Your task to perform on an android device: open app "LiveIn - Share Your Moment" (install if not already installed) Image 0: 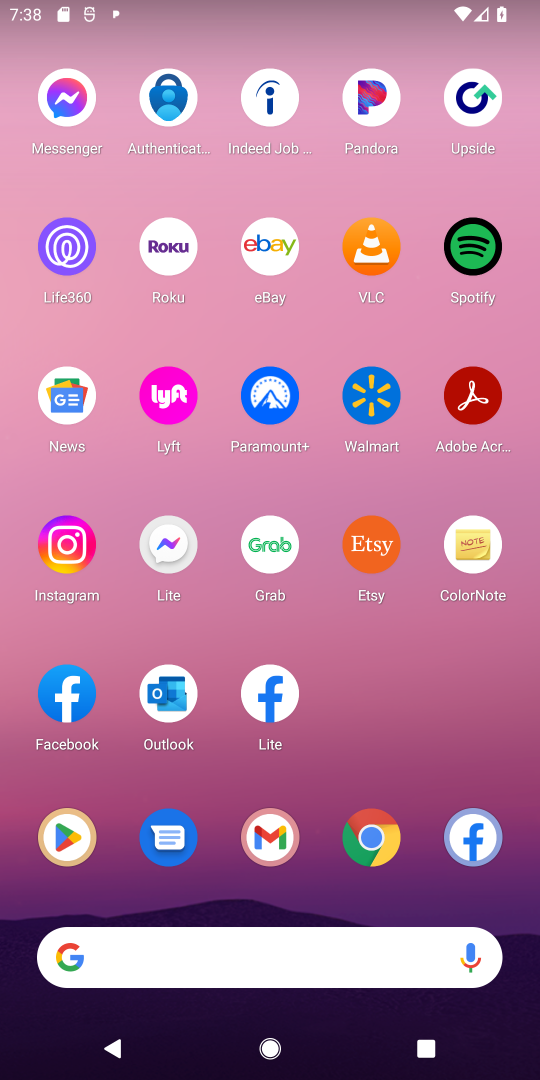
Step 0: click (77, 837)
Your task to perform on an android device: open app "LiveIn - Share Your Moment" (install if not already installed) Image 1: 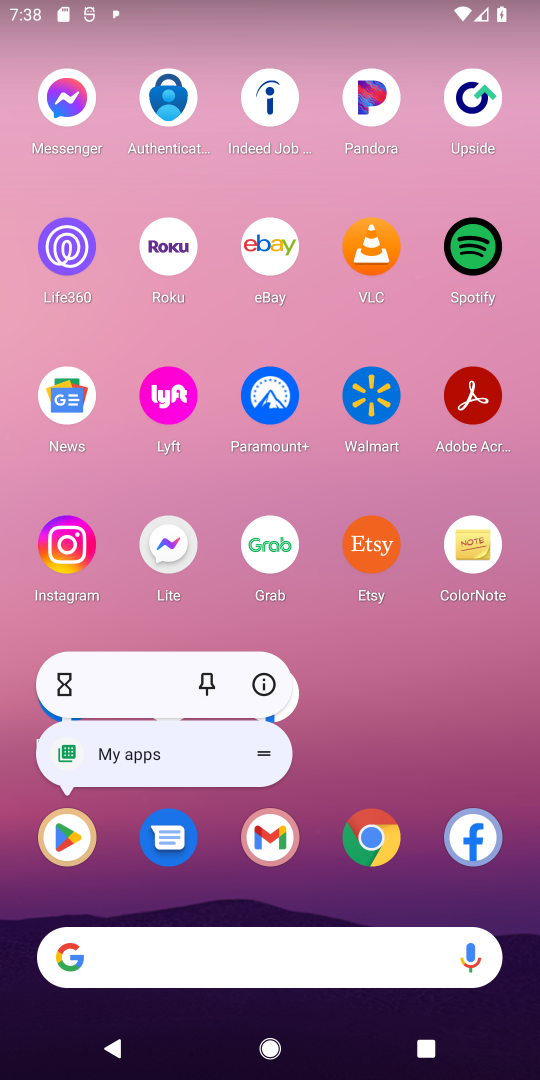
Step 1: click (66, 846)
Your task to perform on an android device: open app "LiveIn - Share Your Moment" (install if not already installed) Image 2: 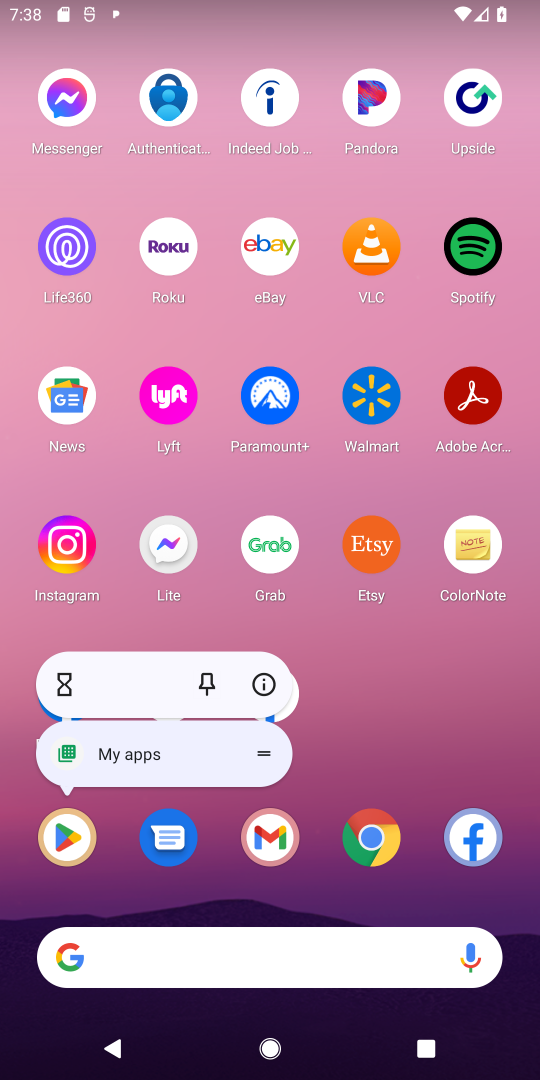
Step 2: click (66, 846)
Your task to perform on an android device: open app "LiveIn - Share Your Moment" (install if not already installed) Image 3: 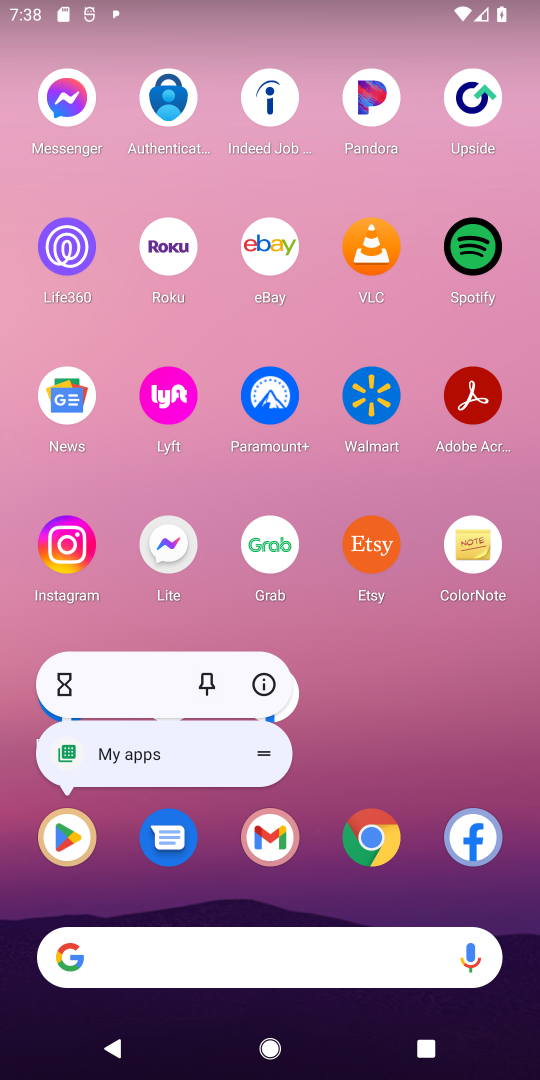
Step 3: click (66, 846)
Your task to perform on an android device: open app "LiveIn - Share Your Moment" (install if not already installed) Image 4: 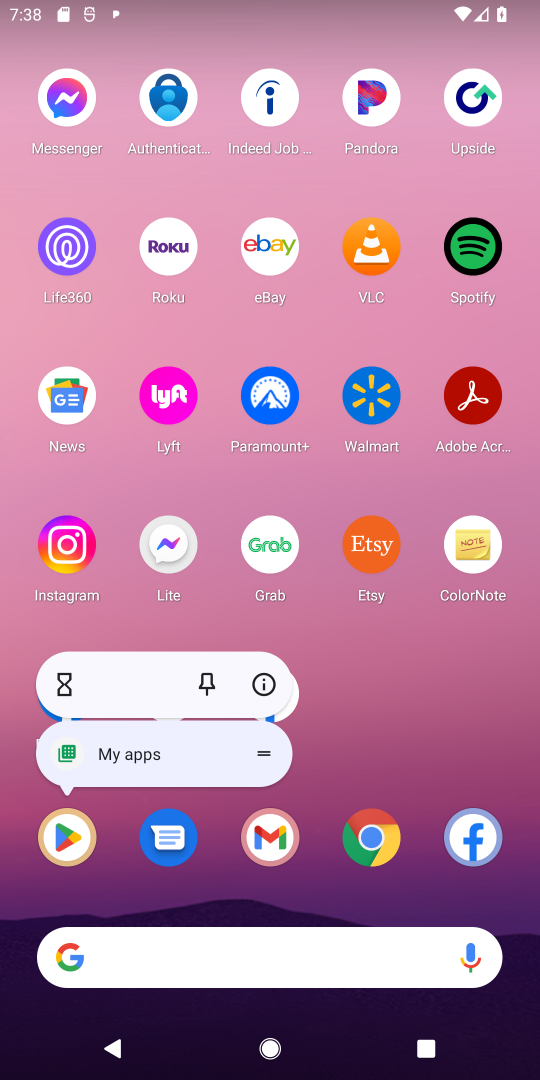
Step 4: click (66, 846)
Your task to perform on an android device: open app "LiveIn - Share Your Moment" (install if not already installed) Image 5: 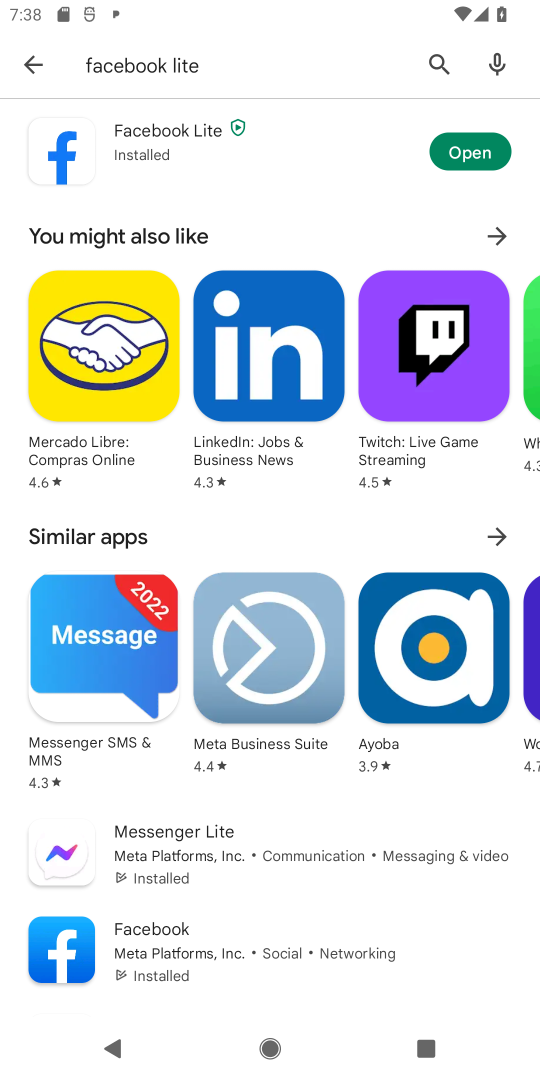
Step 5: click (433, 50)
Your task to perform on an android device: open app "LiveIn - Share Your Moment" (install if not already installed) Image 6: 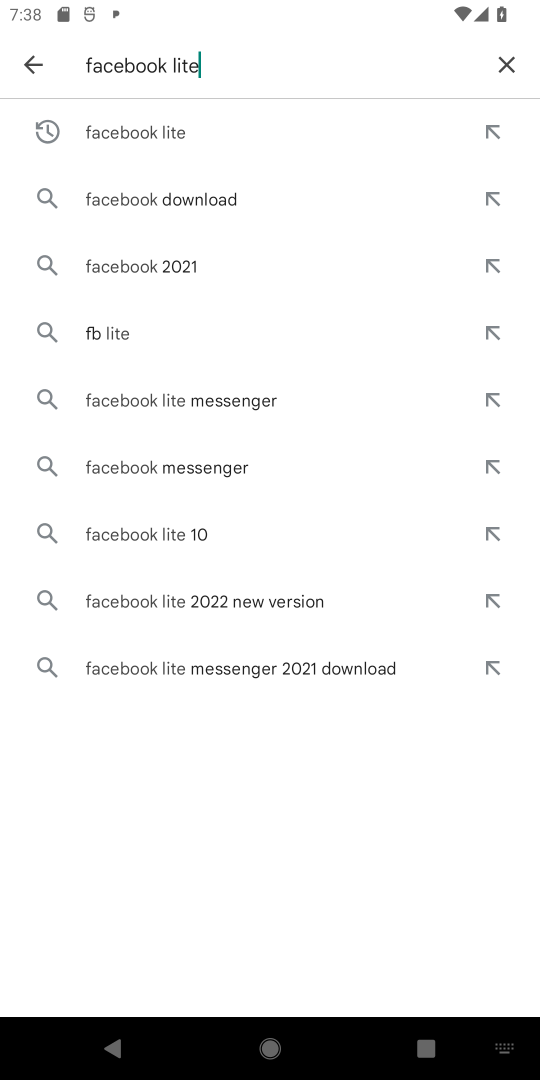
Step 6: click (504, 54)
Your task to perform on an android device: open app "LiveIn - Share Your Moment" (install if not already installed) Image 7: 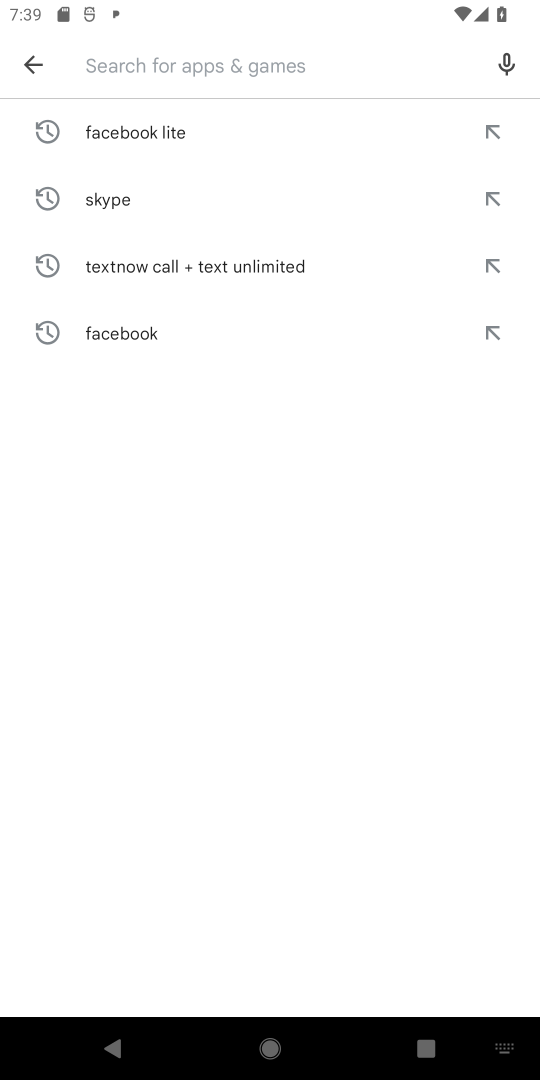
Step 7: type "LiveIn - Share Your Moment"
Your task to perform on an android device: open app "LiveIn - Share Your Moment" (install if not already installed) Image 8: 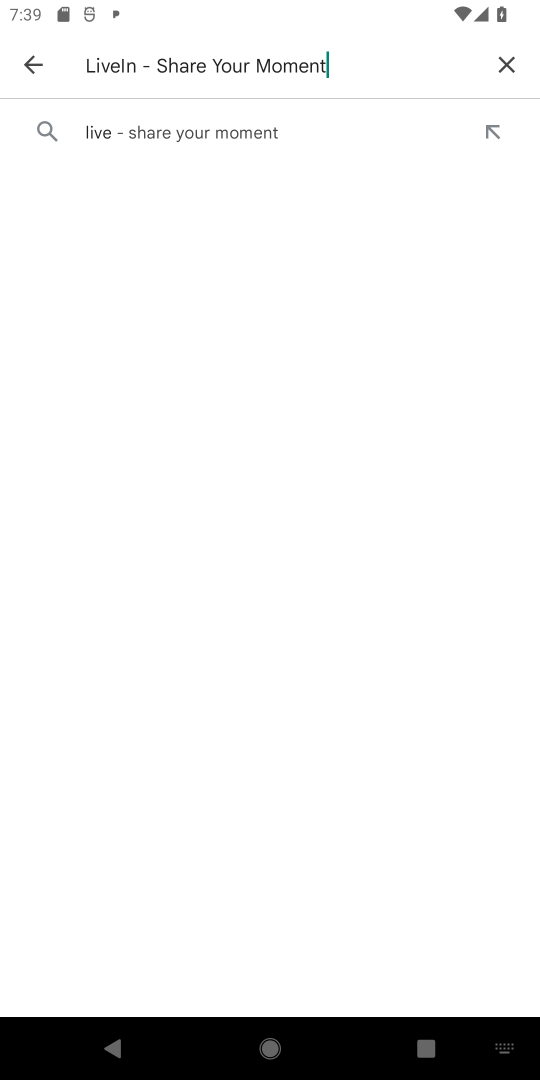
Step 8: click (165, 139)
Your task to perform on an android device: open app "LiveIn - Share Your Moment" (install if not already installed) Image 9: 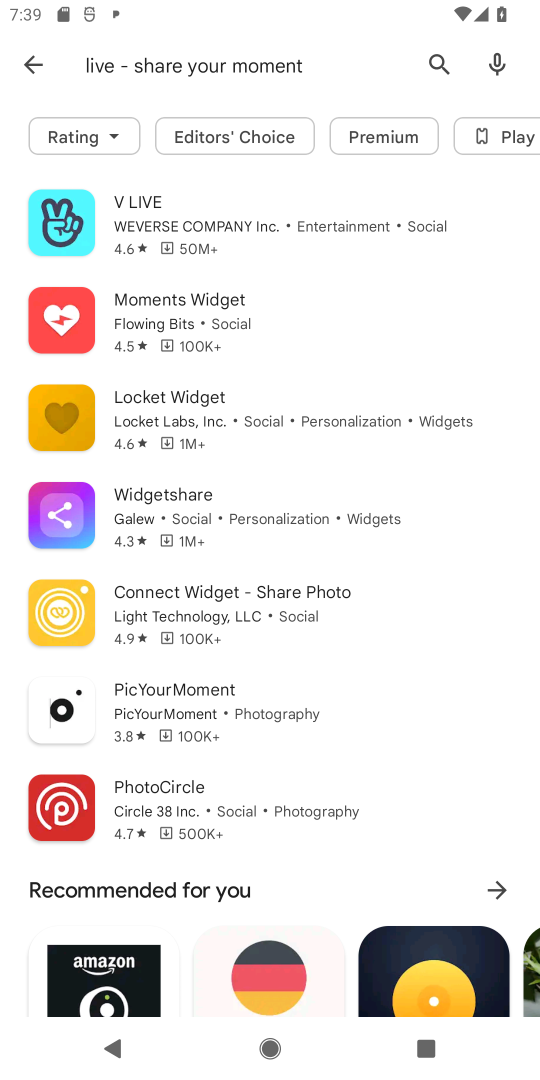
Step 9: task complete